Your task to perform on an android device: create a new album in the google photos Image 0: 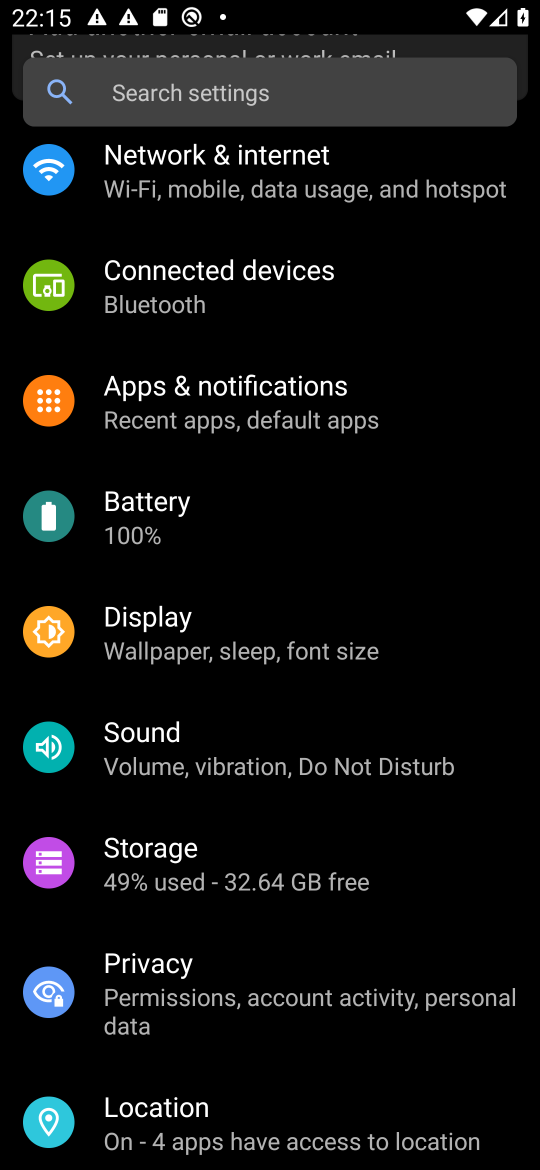
Step 0: press home button
Your task to perform on an android device: create a new album in the google photos Image 1: 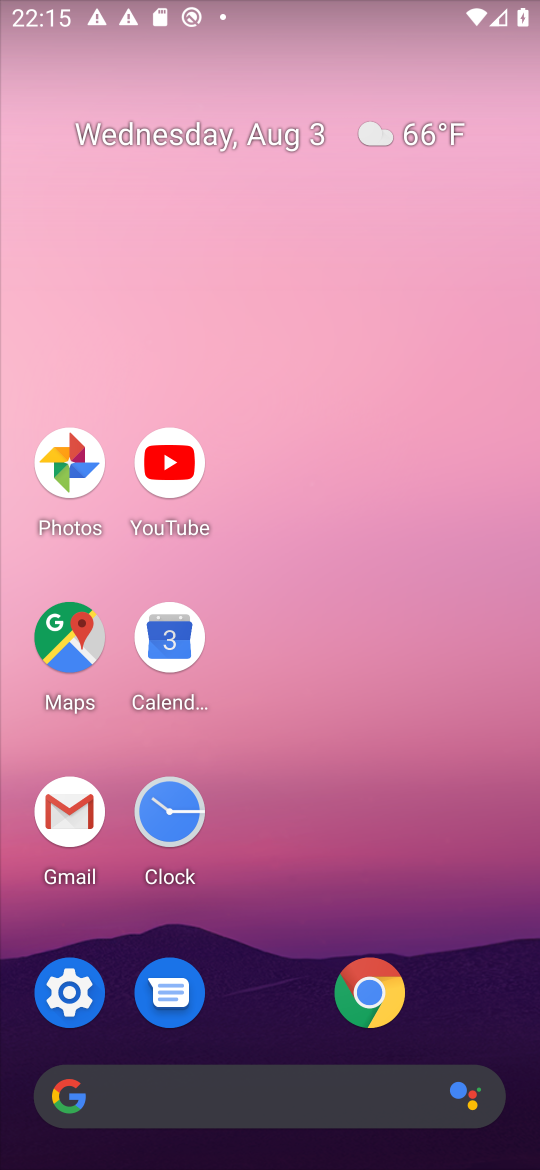
Step 1: click (66, 459)
Your task to perform on an android device: create a new album in the google photos Image 2: 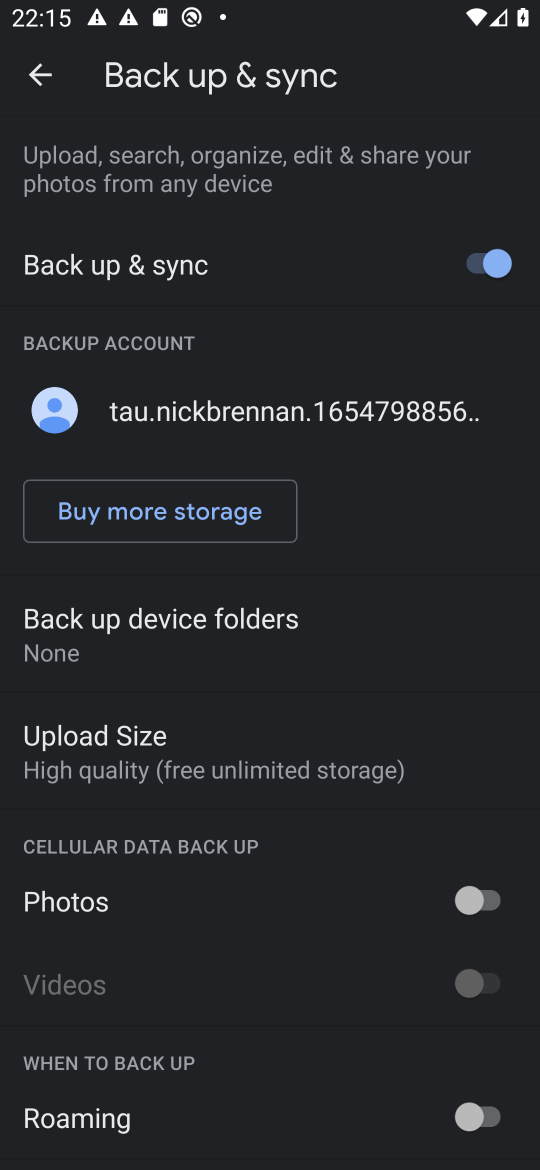
Step 2: click (38, 79)
Your task to perform on an android device: create a new album in the google photos Image 3: 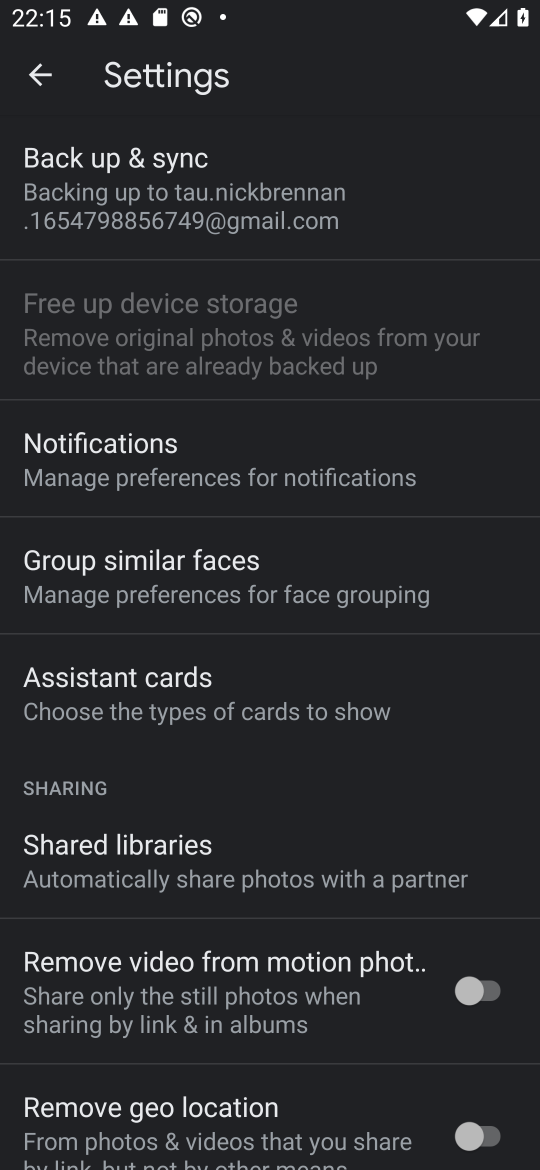
Step 3: click (44, 78)
Your task to perform on an android device: create a new album in the google photos Image 4: 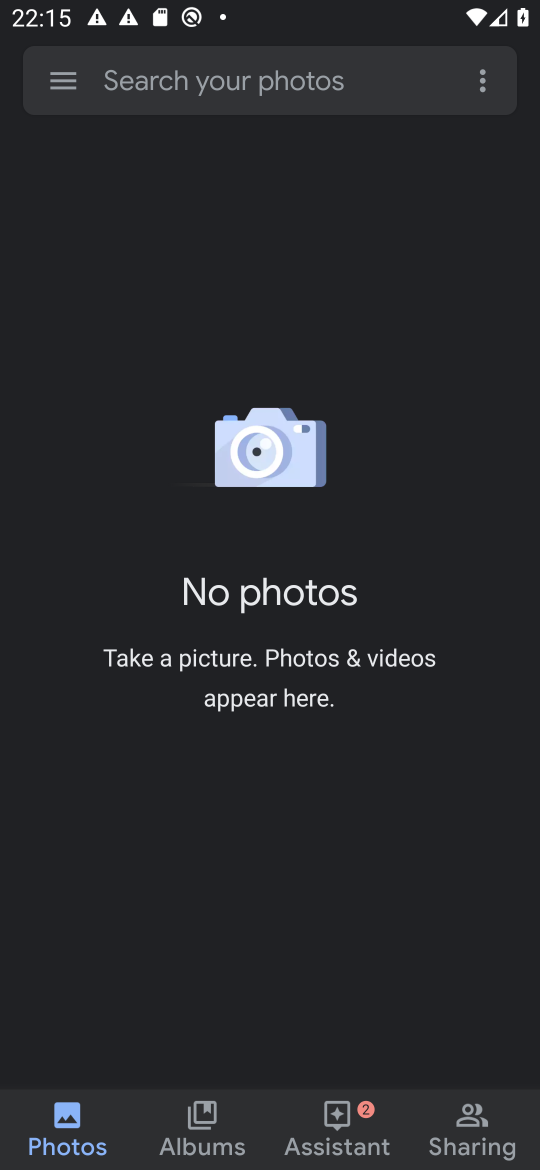
Step 4: click (489, 92)
Your task to perform on an android device: create a new album in the google photos Image 5: 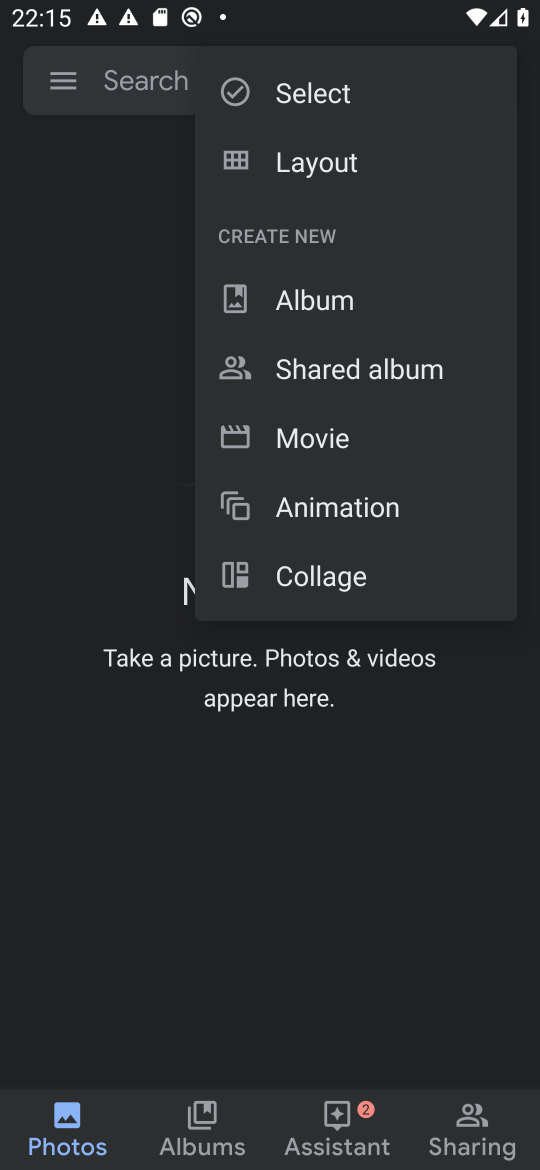
Step 5: click (328, 296)
Your task to perform on an android device: create a new album in the google photos Image 6: 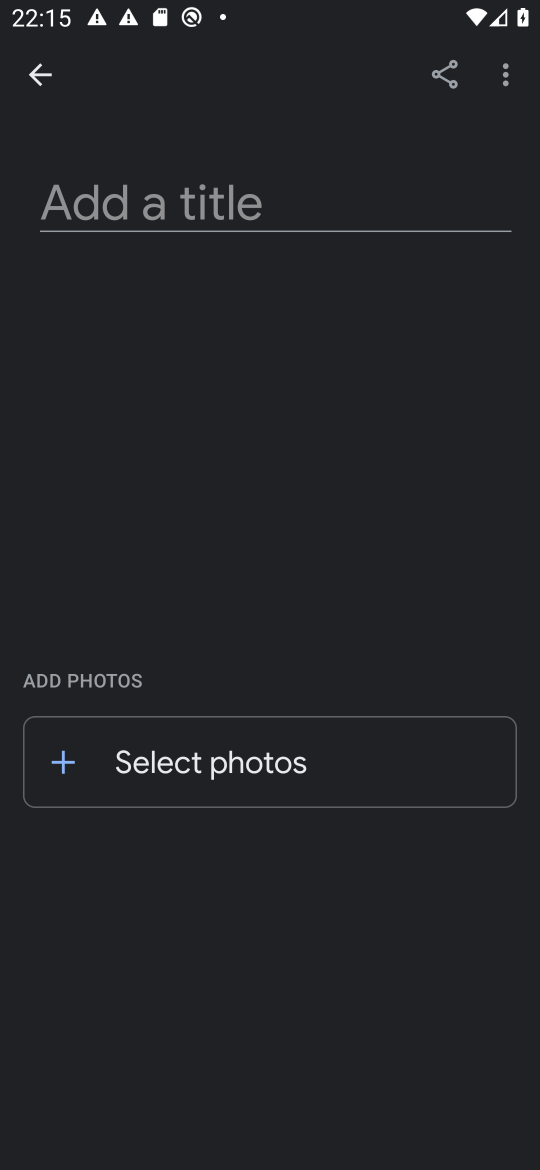
Step 6: click (214, 191)
Your task to perform on an android device: create a new album in the google photos Image 7: 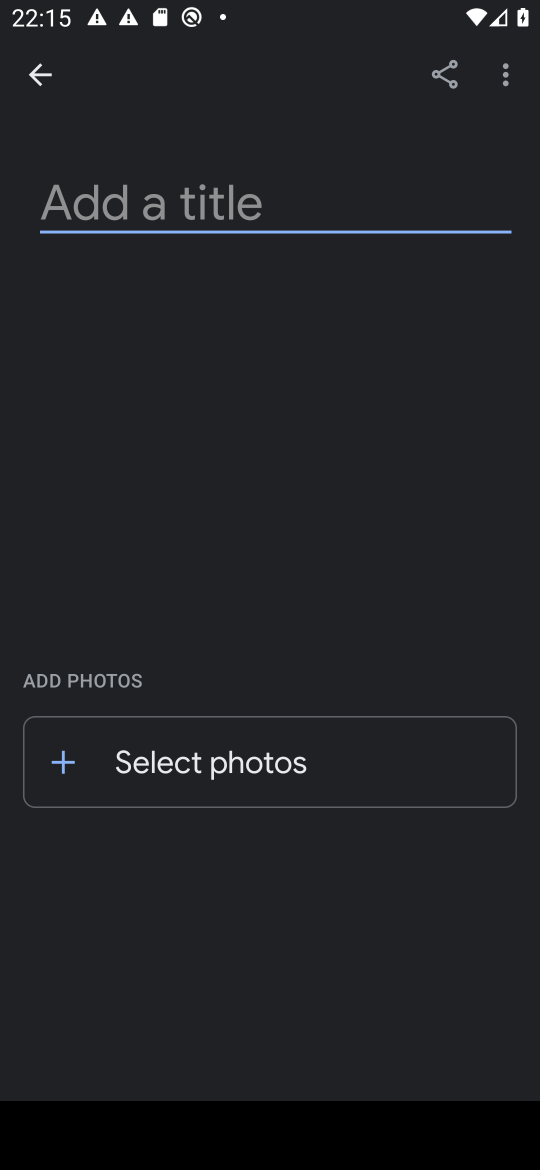
Step 7: type "fghjhg"
Your task to perform on an android device: create a new album in the google photos Image 8: 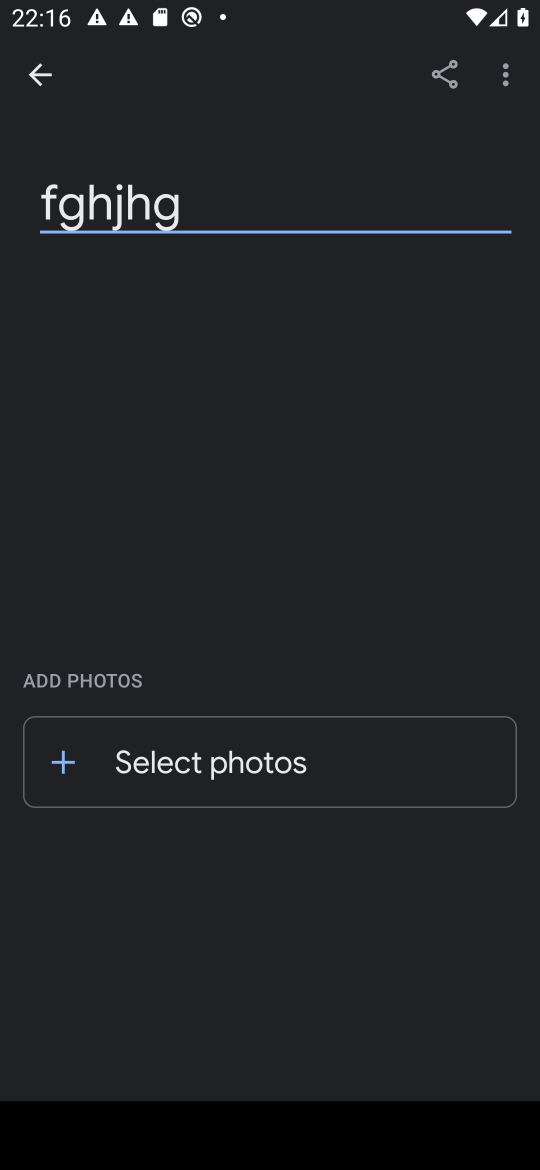
Step 8: click (41, 74)
Your task to perform on an android device: create a new album in the google photos Image 9: 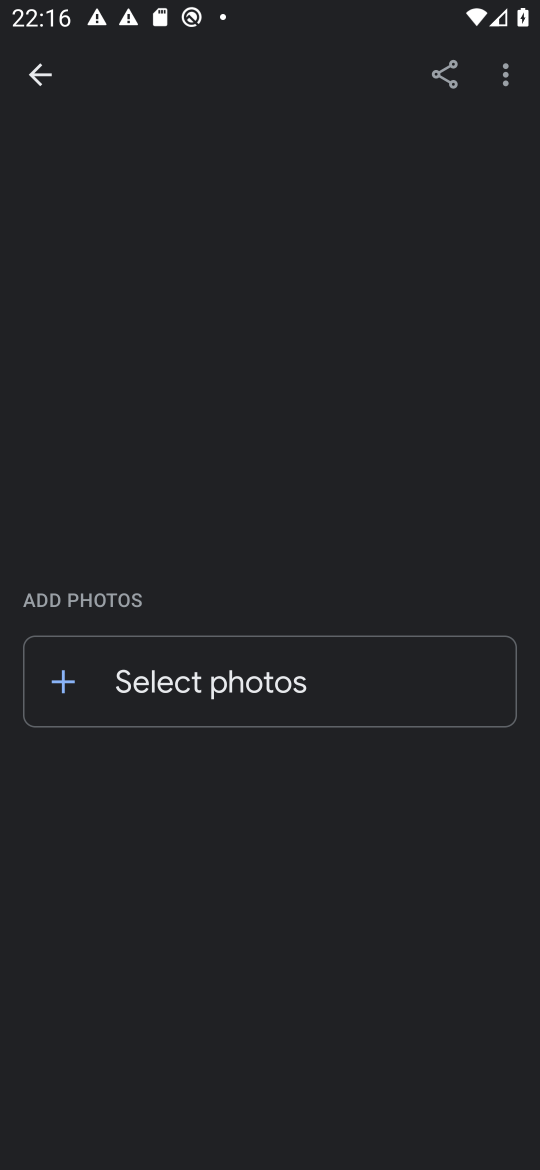
Step 9: task complete